Your task to perform on an android device: Find coffee shops on Maps Image 0: 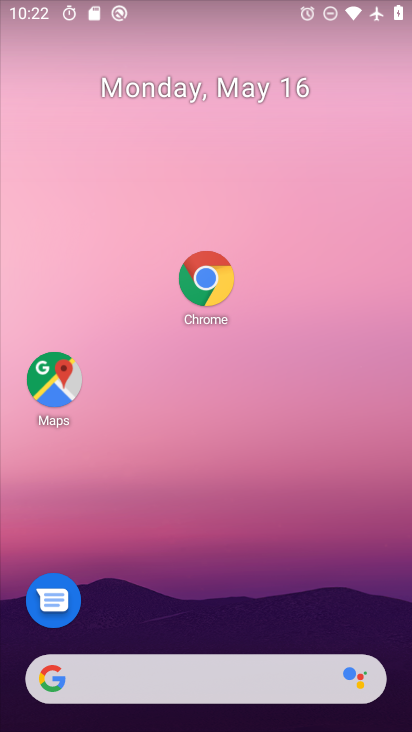
Step 0: click (206, 290)
Your task to perform on an android device: Find coffee shops on Maps Image 1: 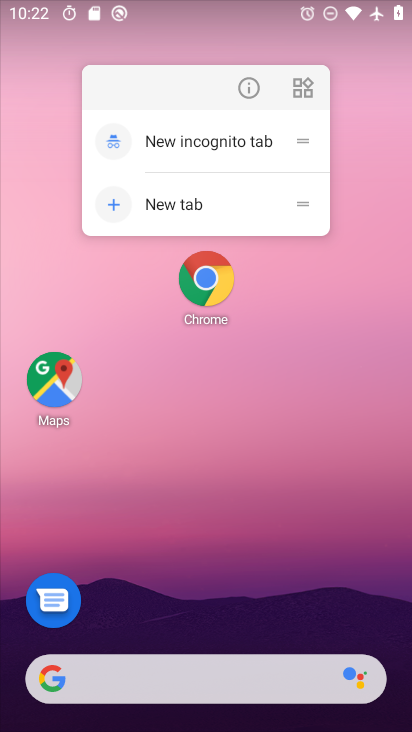
Step 1: click (204, 292)
Your task to perform on an android device: Find coffee shops on Maps Image 2: 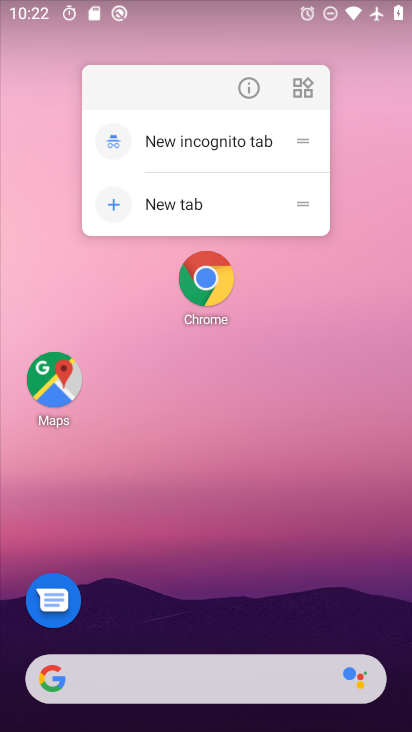
Step 2: click (210, 283)
Your task to perform on an android device: Find coffee shops on Maps Image 3: 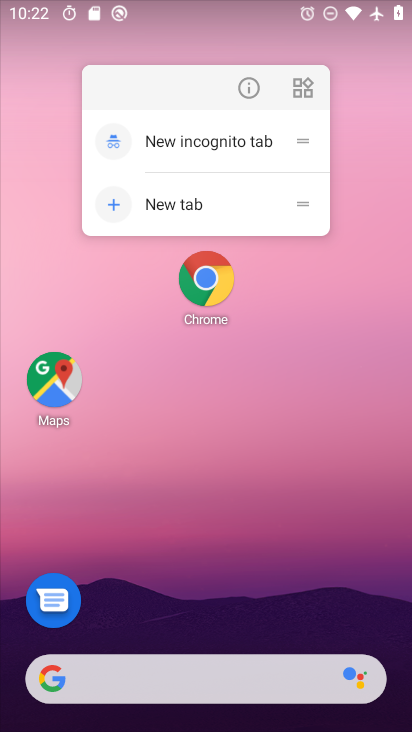
Step 3: click (210, 278)
Your task to perform on an android device: Find coffee shops on Maps Image 4: 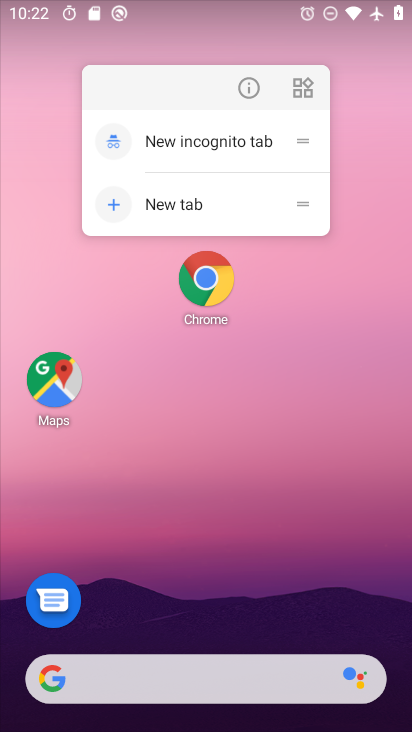
Step 4: click (61, 386)
Your task to perform on an android device: Find coffee shops on Maps Image 5: 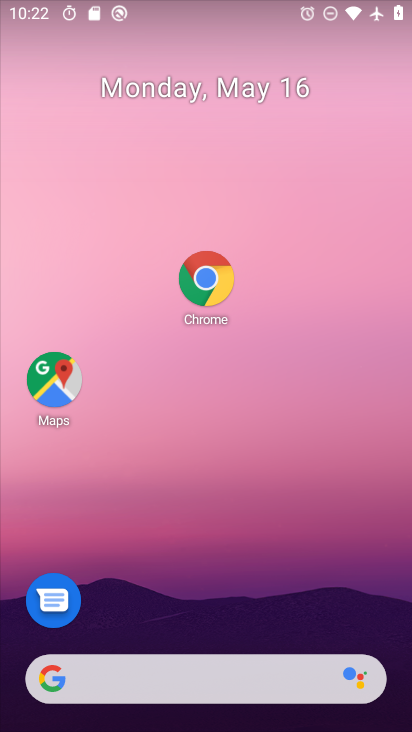
Step 5: click (49, 387)
Your task to perform on an android device: Find coffee shops on Maps Image 6: 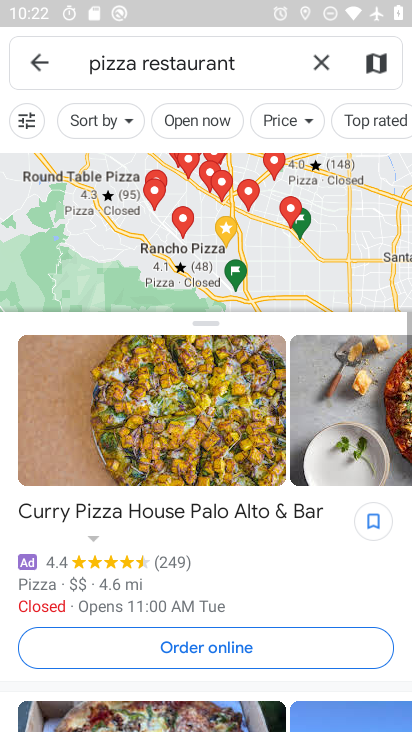
Step 6: click (324, 64)
Your task to perform on an android device: Find coffee shops on Maps Image 7: 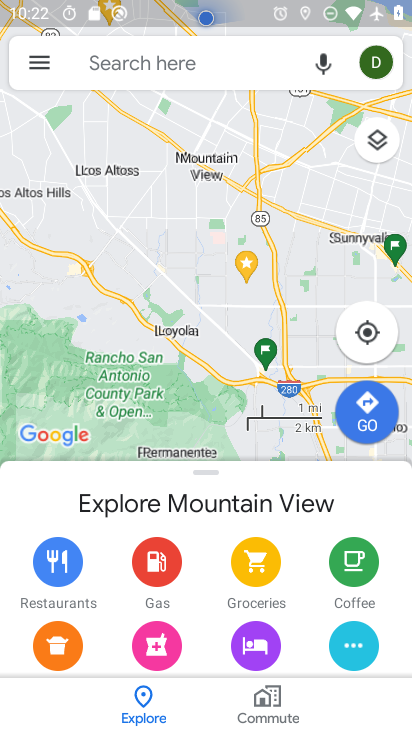
Step 7: click (184, 61)
Your task to perform on an android device: Find coffee shops on Maps Image 8: 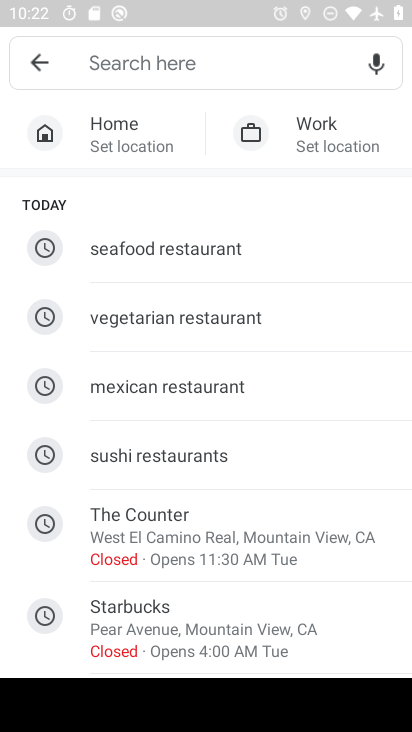
Step 8: type "coffee"
Your task to perform on an android device: Find coffee shops on Maps Image 9: 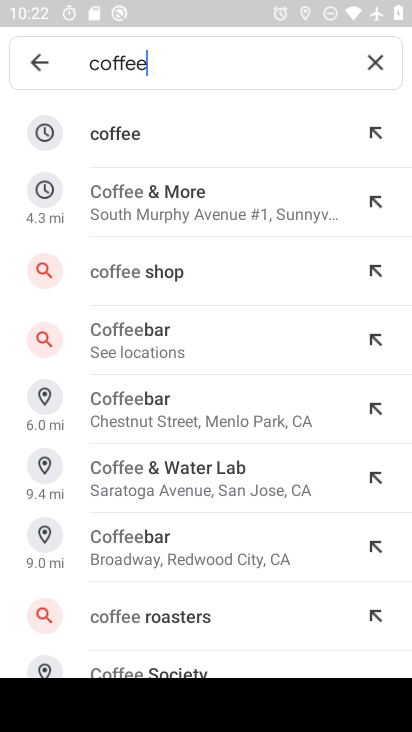
Step 9: click (174, 266)
Your task to perform on an android device: Find coffee shops on Maps Image 10: 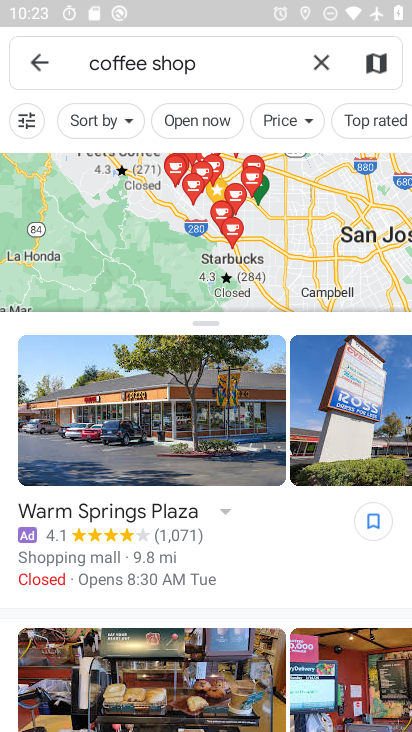
Step 10: task complete